Your task to perform on an android device: Go to ESPN.com Image 0: 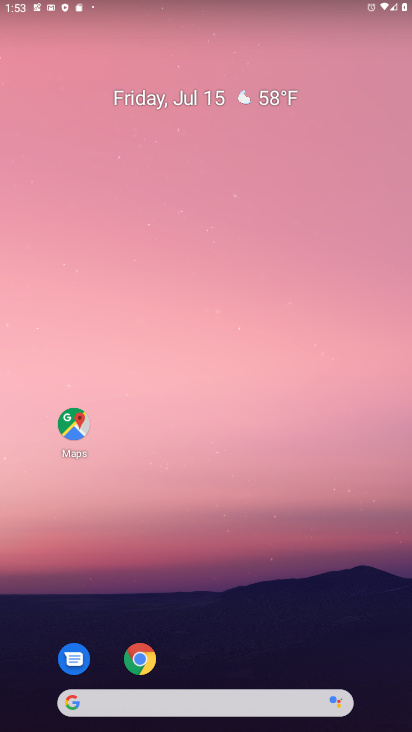
Step 0: drag from (253, 720) to (297, 230)
Your task to perform on an android device: Go to ESPN.com Image 1: 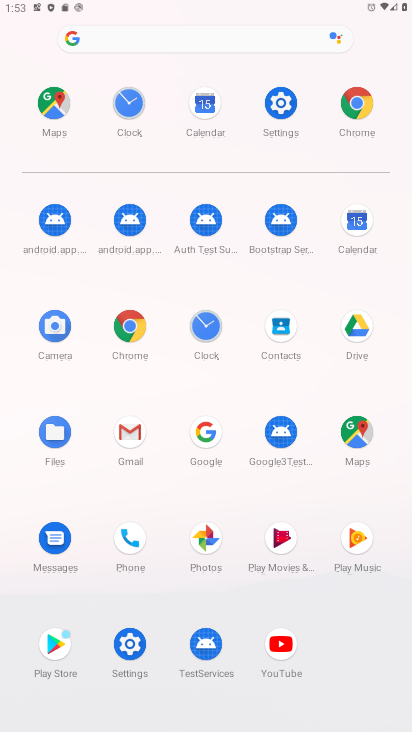
Step 1: click (357, 100)
Your task to perform on an android device: Go to ESPN.com Image 2: 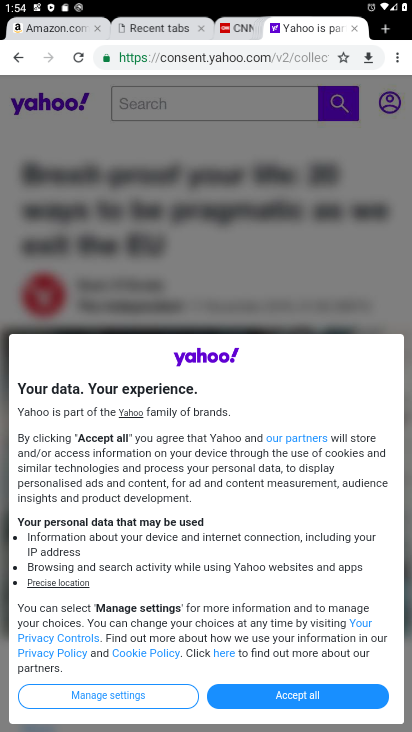
Step 2: click (398, 59)
Your task to perform on an android device: Go to ESPN.com Image 3: 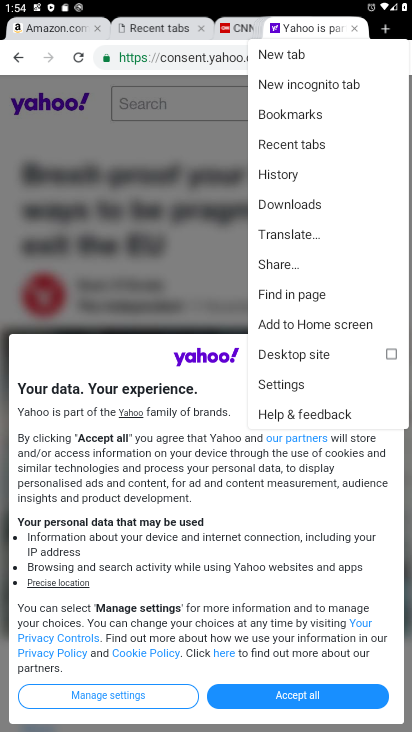
Step 3: click (285, 56)
Your task to perform on an android device: Go to ESPN.com Image 4: 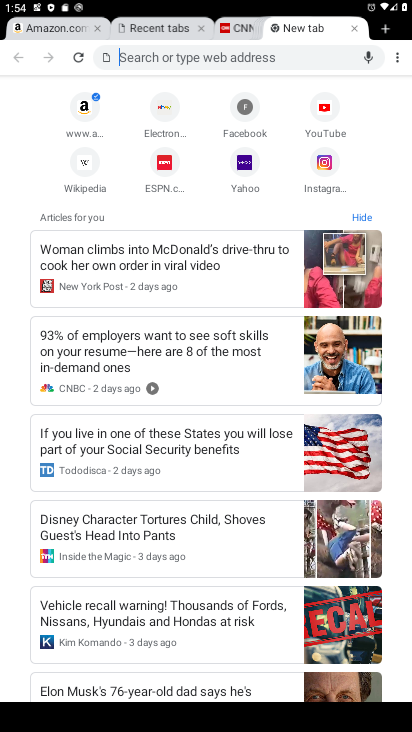
Step 4: click (161, 166)
Your task to perform on an android device: Go to ESPN.com Image 5: 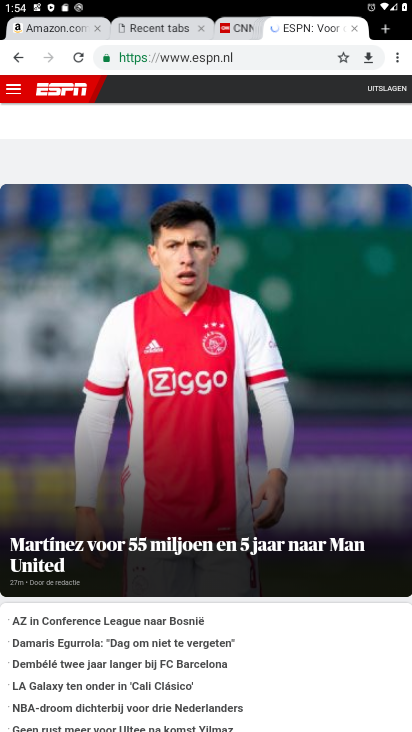
Step 5: task complete